Your task to perform on an android device: toggle javascript in the chrome app Image 0: 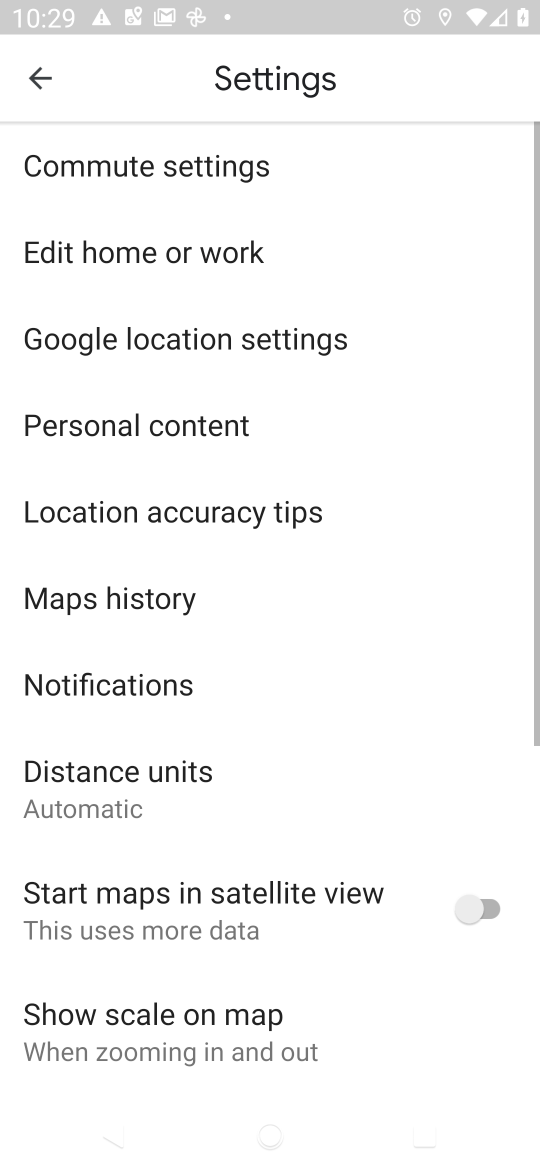
Step 0: press home button
Your task to perform on an android device: toggle javascript in the chrome app Image 1: 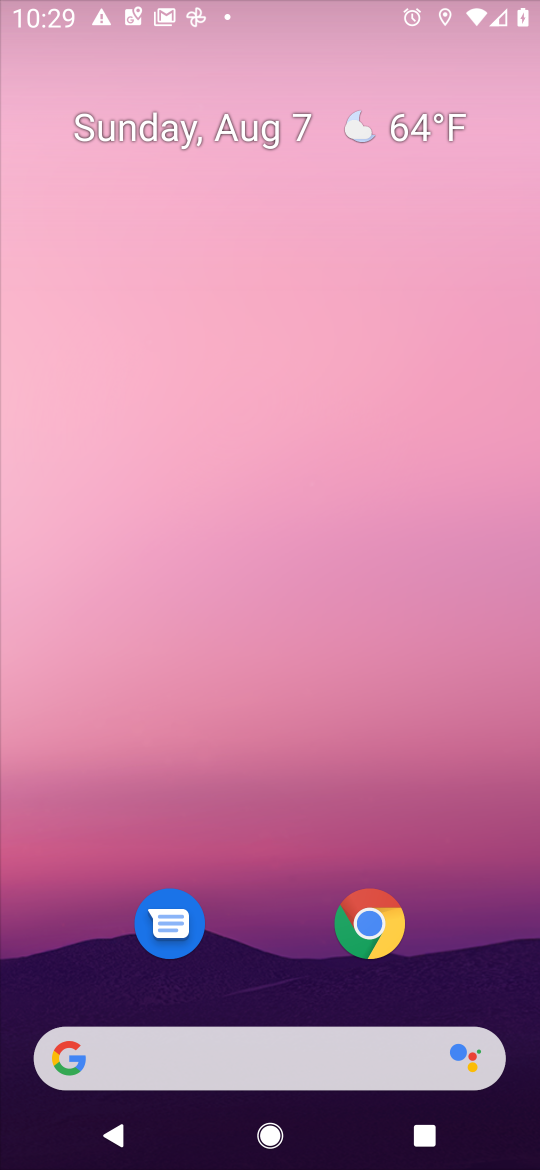
Step 1: drag from (503, 888) to (309, 37)
Your task to perform on an android device: toggle javascript in the chrome app Image 2: 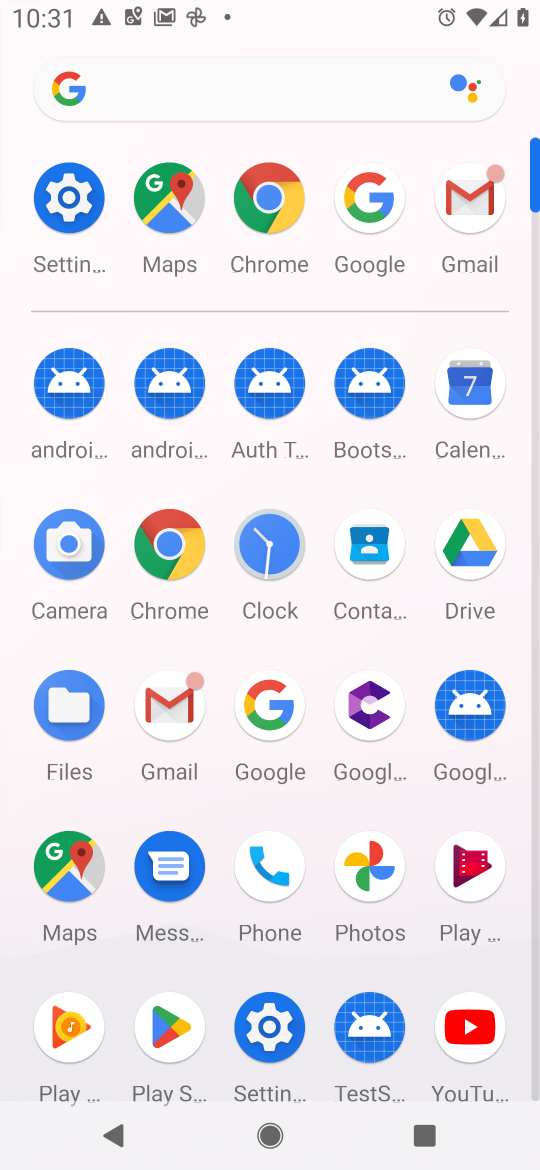
Step 2: click (172, 543)
Your task to perform on an android device: toggle javascript in the chrome app Image 3: 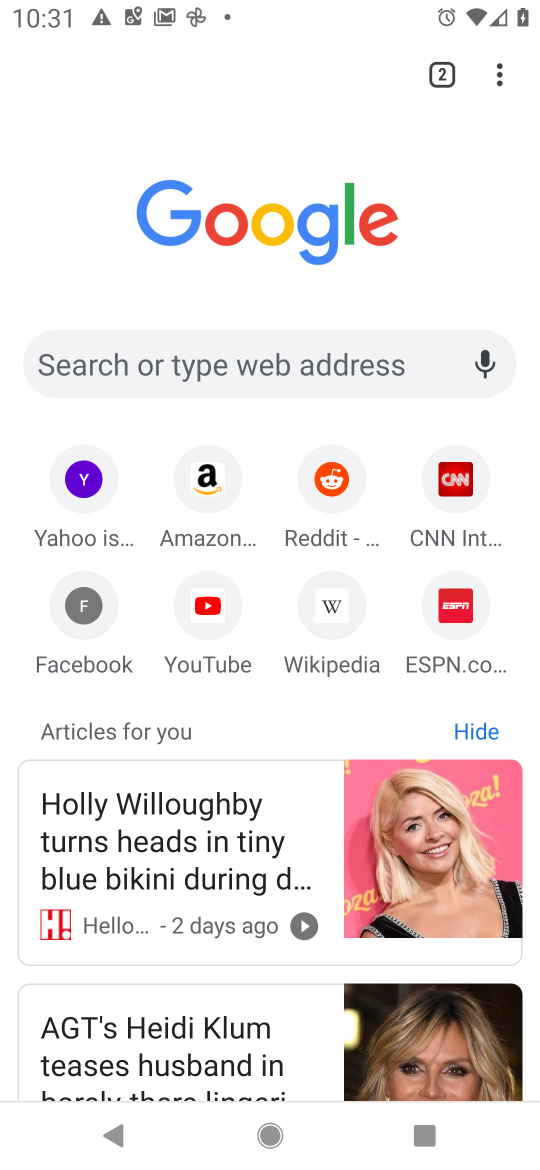
Step 3: click (503, 58)
Your task to perform on an android device: toggle javascript in the chrome app Image 4: 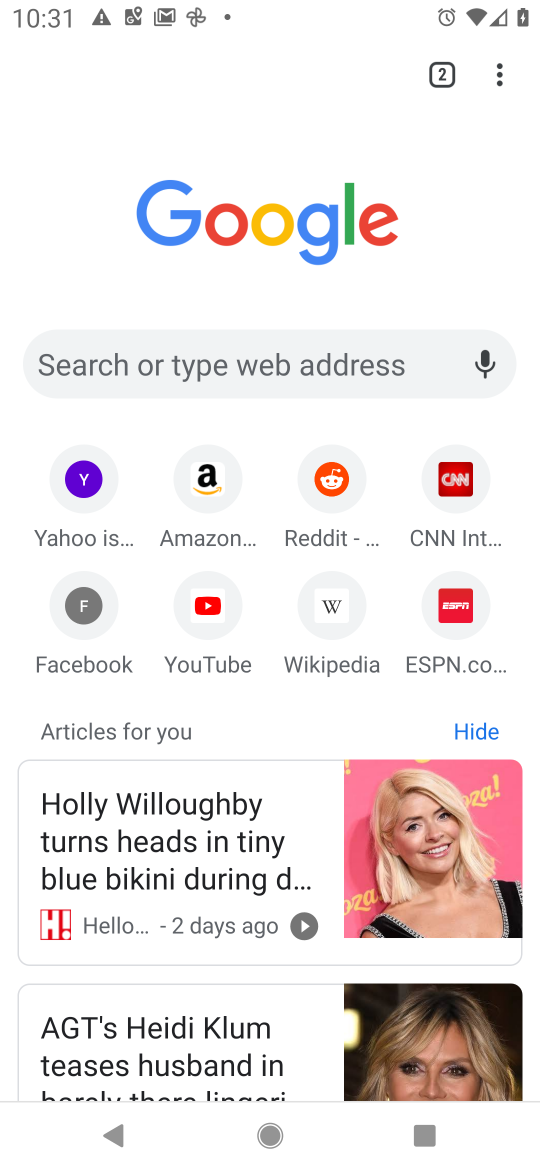
Step 4: click (498, 60)
Your task to perform on an android device: toggle javascript in the chrome app Image 5: 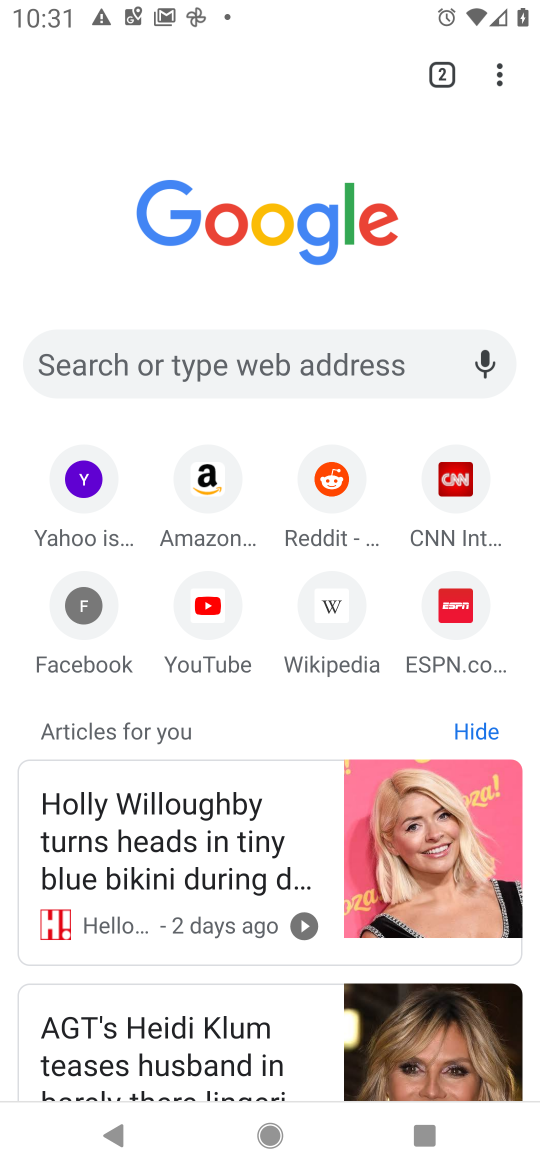
Step 5: click (498, 61)
Your task to perform on an android device: toggle javascript in the chrome app Image 6: 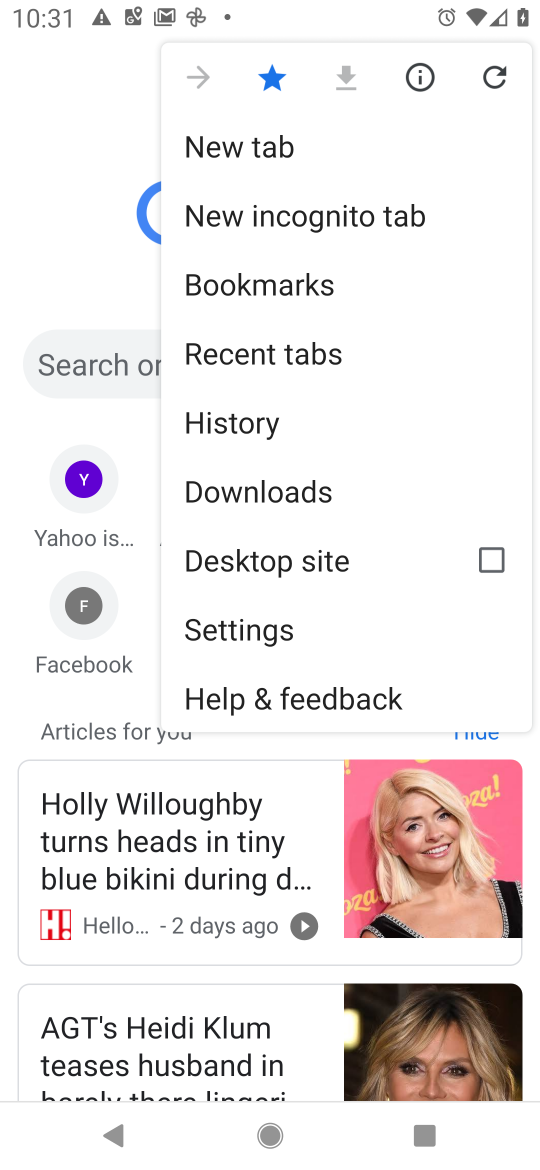
Step 6: click (243, 619)
Your task to perform on an android device: toggle javascript in the chrome app Image 7: 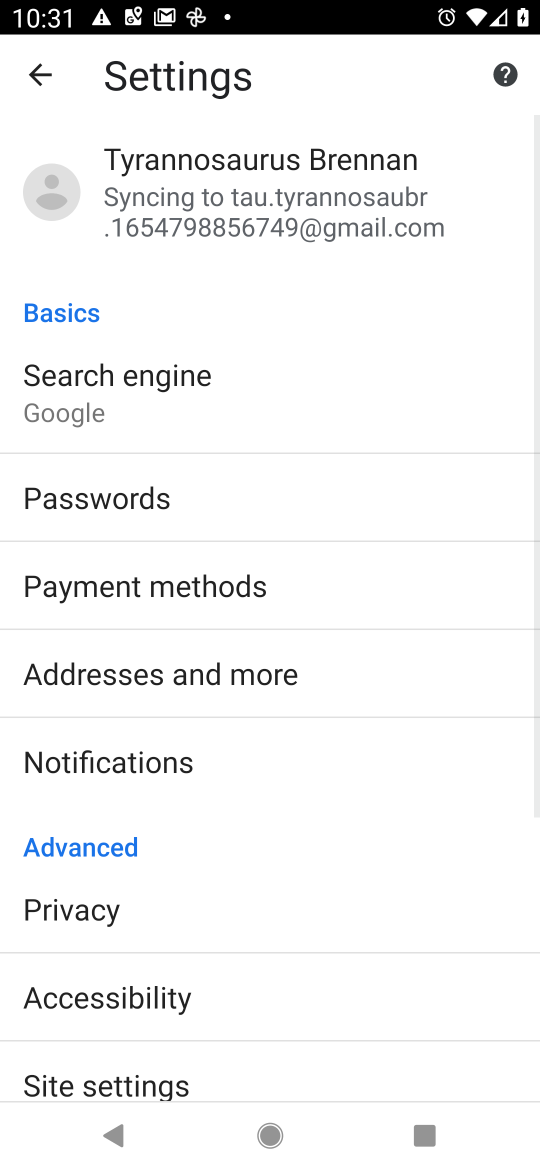
Step 7: click (102, 1089)
Your task to perform on an android device: toggle javascript in the chrome app Image 8: 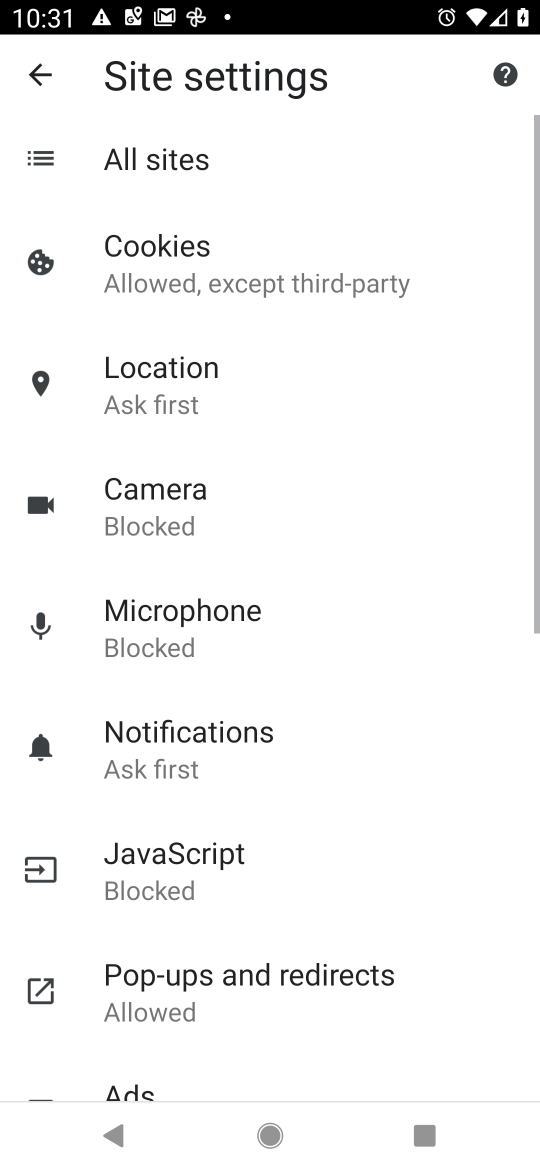
Step 8: click (252, 890)
Your task to perform on an android device: toggle javascript in the chrome app Image 9: 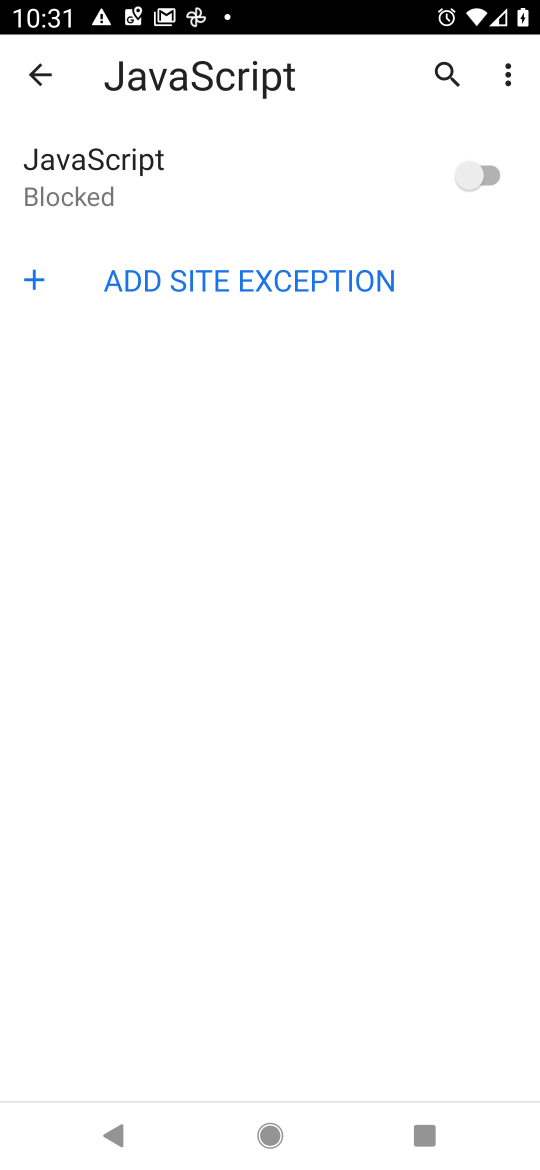
Step 9: click (472, 188)
Your task to perform on an android device: toggle javascript in the chrome app Image 10: 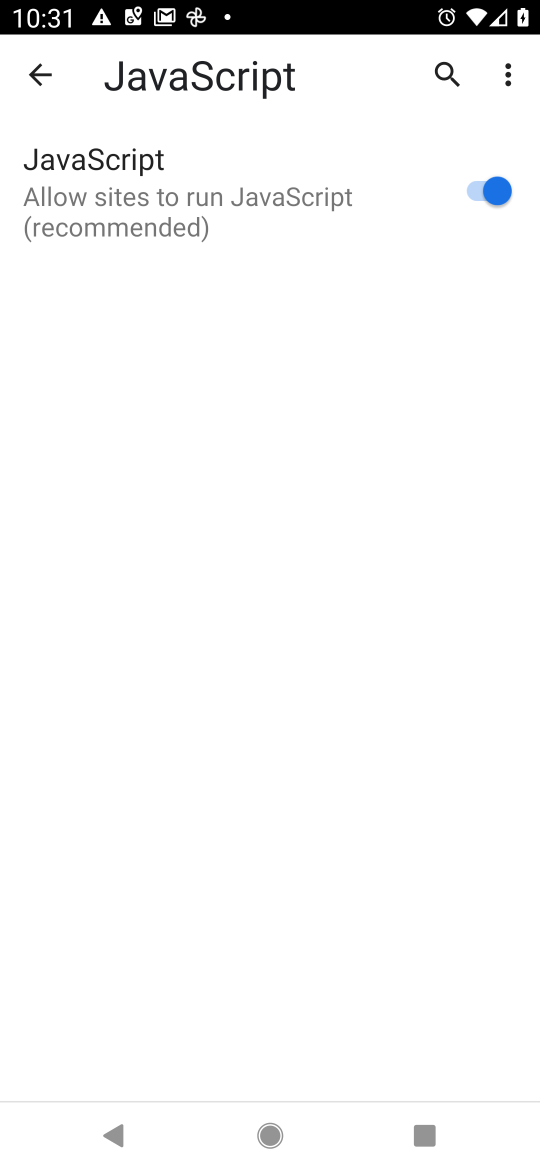
Step 10: task complete